Your task to perform on an android device: delete browsing data in the chrome app Image 0: 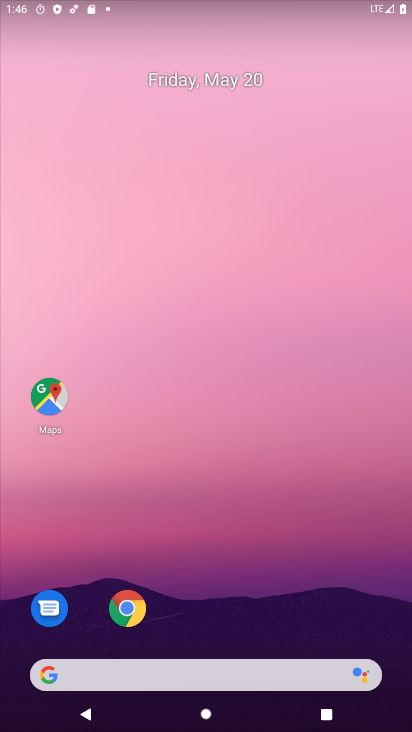
Step 0: drag from (226, 617) to (195, 39)
Your task to perform on an android device: delete browsing data in the chrome app Image 1: 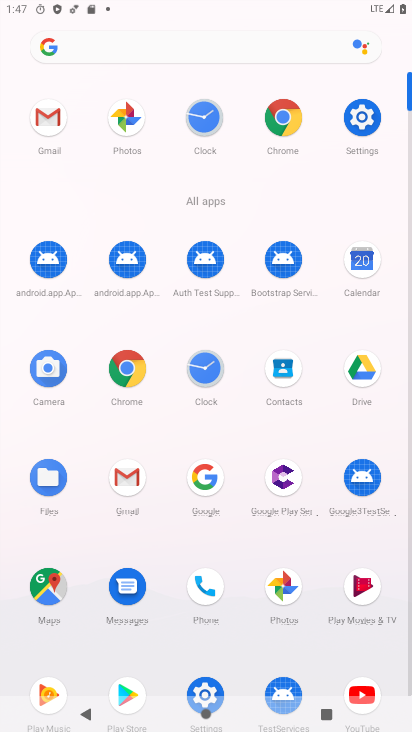
Step 1: click (127, 369)
Your task to perform on an android device: delete browsing data in the chrome app Image 2: 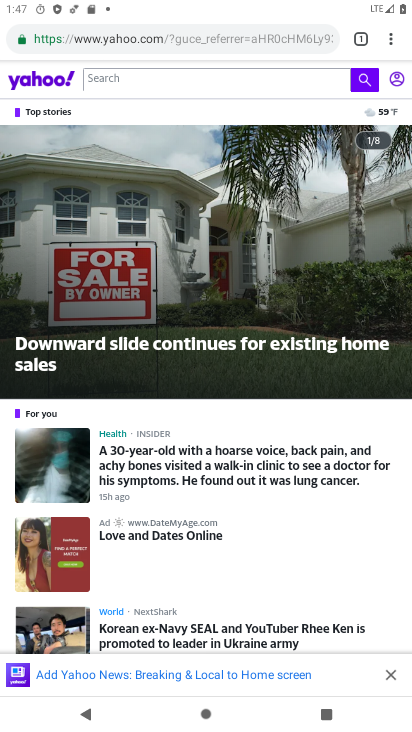
Step 2: click (389, 38)
Your task to perform on an android device: delete browsing data in the chrome app Image 3: 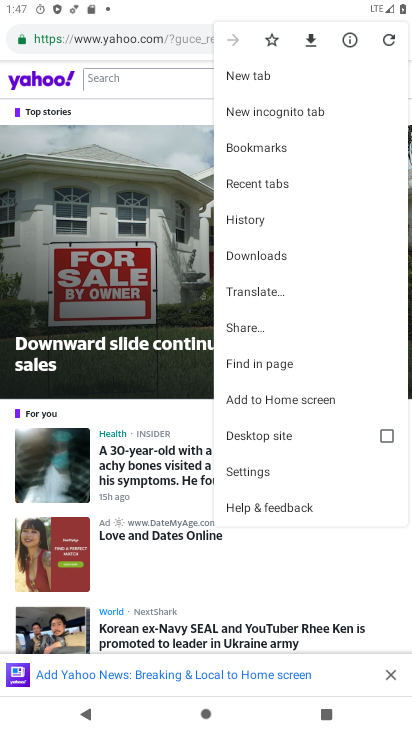
Step 3: click (254, 472)
Your task to perform on an android device: delete browsing data in the chrome app Image 4: 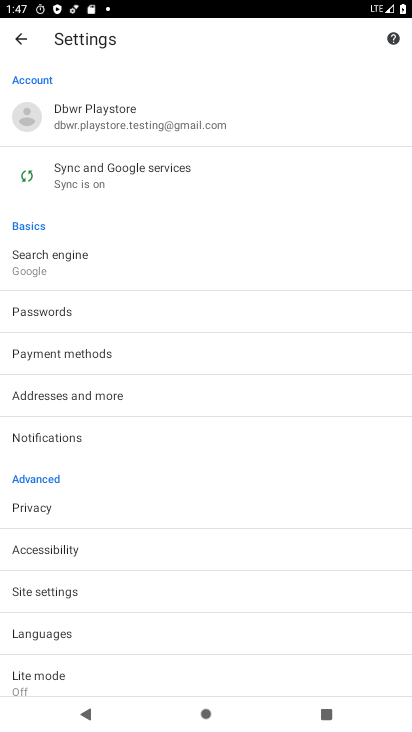
Step 4: click (39, 506)
Your task to perform on an android device: delete browsing data in the chrome app Image 5: 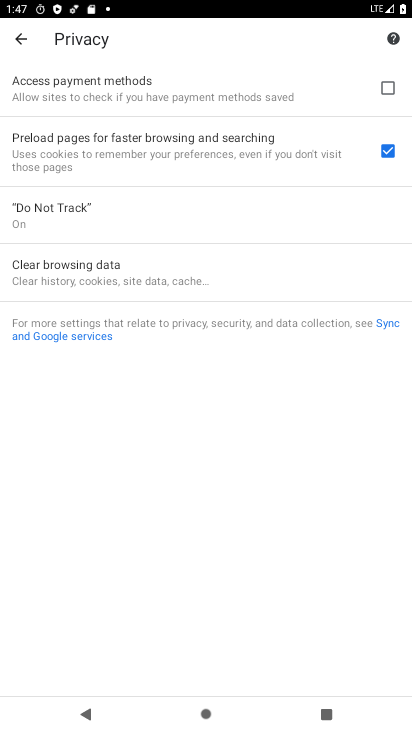
Step 5: click (78, 278)
Your task to perform on an android device: delete browsing data in the chrome app Image 6: 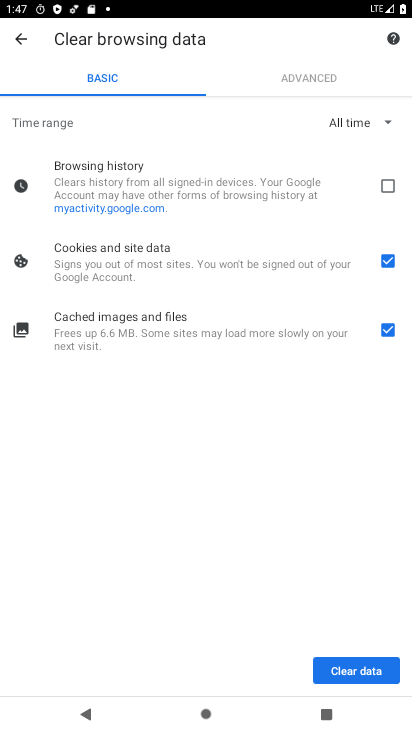
Step 6: click (388, 183)
Your task to perform on an android device: delete browsing data in the chrome app Image 7: 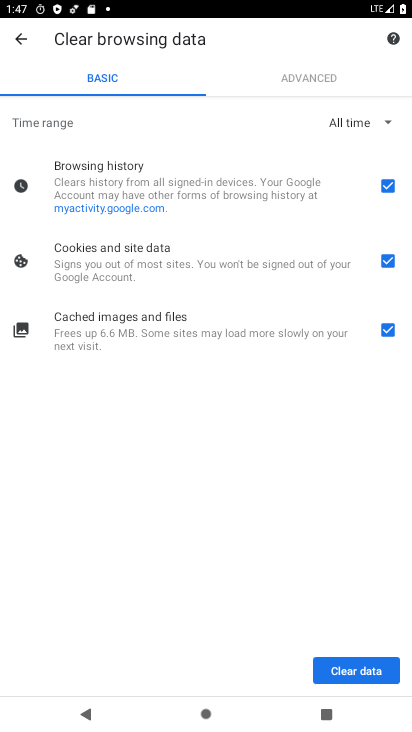
Step 7: click (358, 672)
Your task to perform on an android device: delete browsing data in the chrome app Image 8: 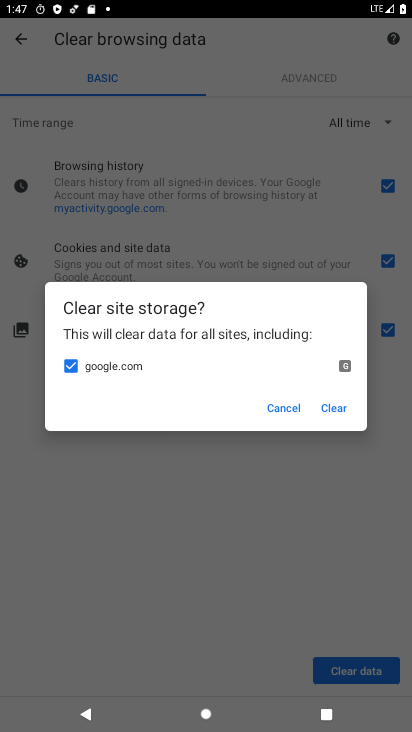
Step 8: click (337, 409)
Your task to perform on an android device: delete browsing data in the chrome app Image 9: 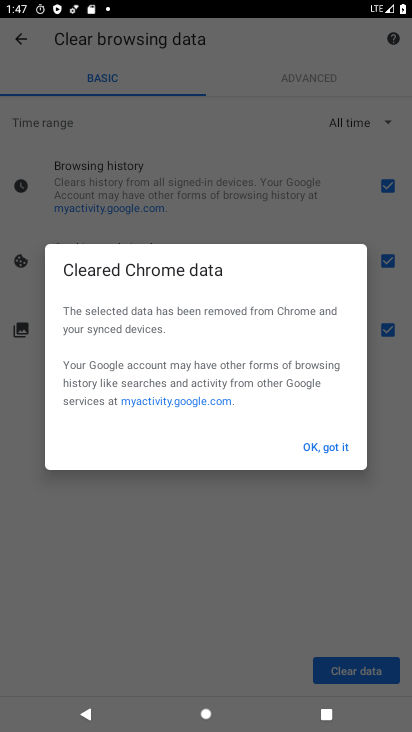
Step 9: click (336, 442)
Your task to perform on an android device: delete browsing data in the chrome app Image 10: 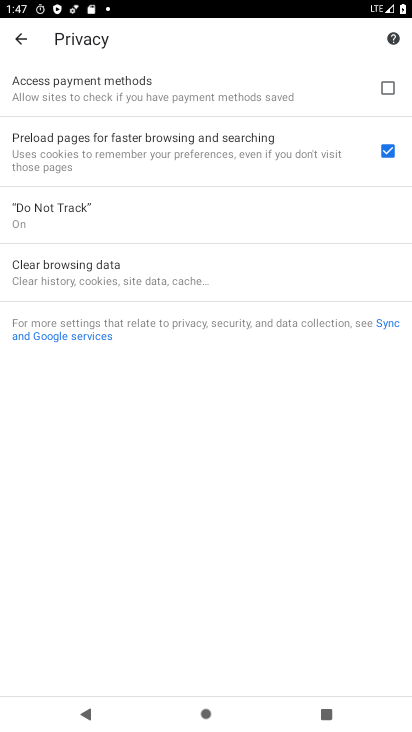
Step 10: task complete